Your task to perform on an android device: Open wifi settings Image 0: 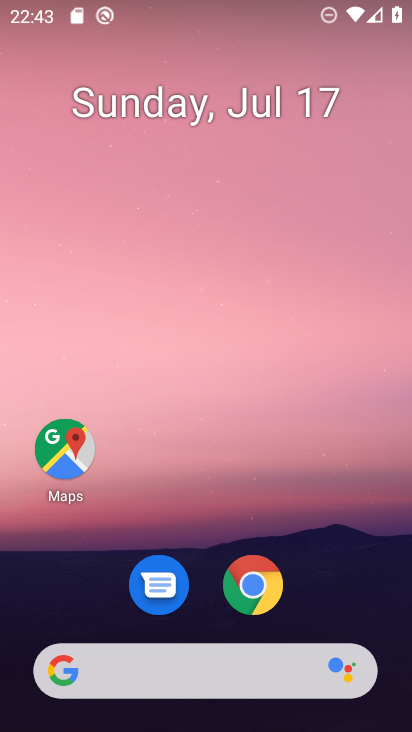
Step 0: press home button
Your task to perform on an android device: Open wifi settings Image 1: 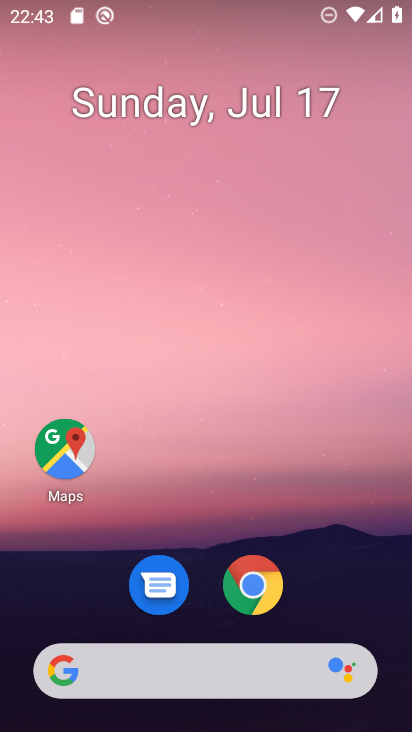
Step 1: drag from (218, 673) to (330, 286)
Your task to perform on an android device: Open wifi settings Image 2: 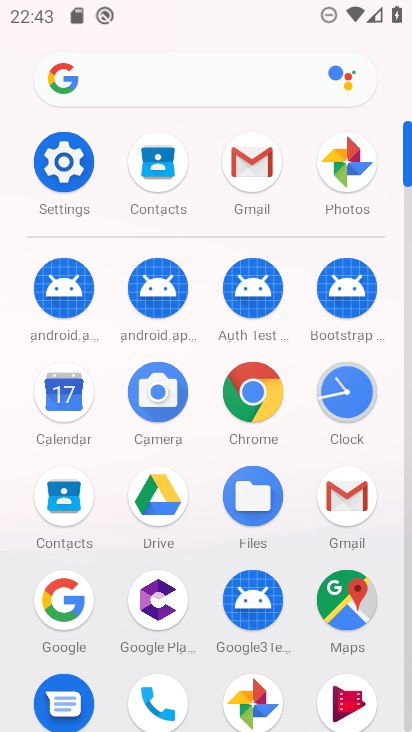
Step 2: click (70, 173)
Your task to perform on an android device: Open wifi settings Image 3: 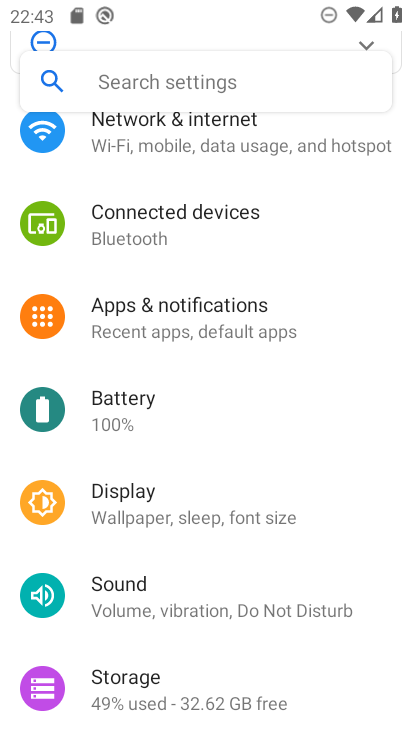
Step 3: drag from (319, 189) to (223, 546)
Your task to perform on an android device: Open wifi settings Image 4: 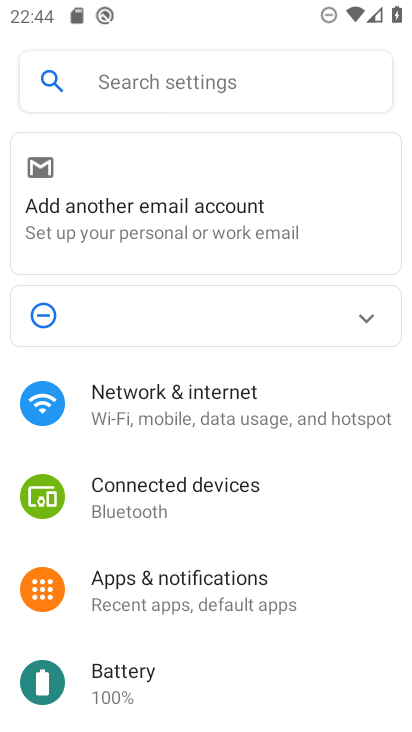
Step 4: click (215, 409)
Your task to perform on an android device: Open wifi settings Image 5: 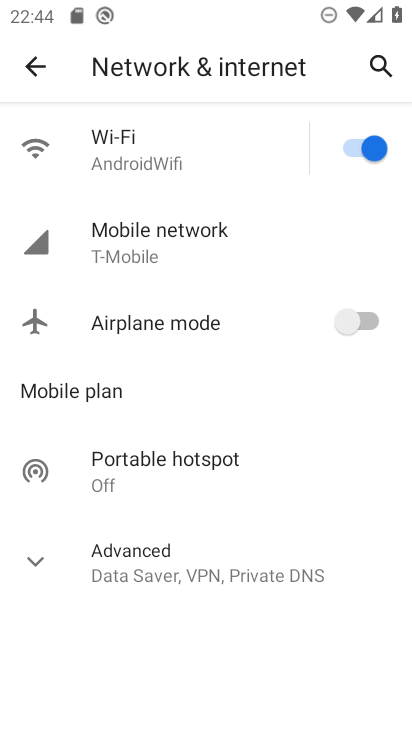
Step 5: click (137, 153)
Your task to perform on an android device: Open wifi settings Image 6: 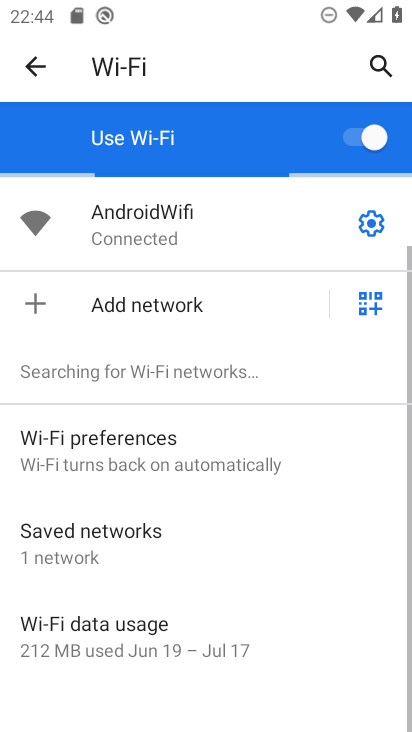
Step 6: task complete